Your task to perform on an android device: Open the web browser Image 0: 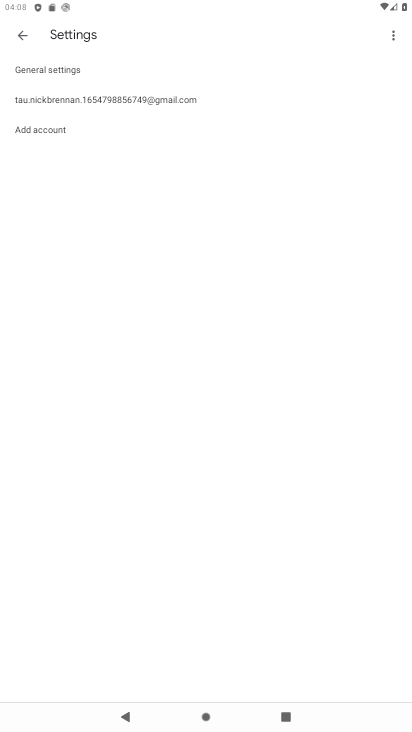
Step 0: press home button
Your task to perform on an android device: Open the web browser Image 1: 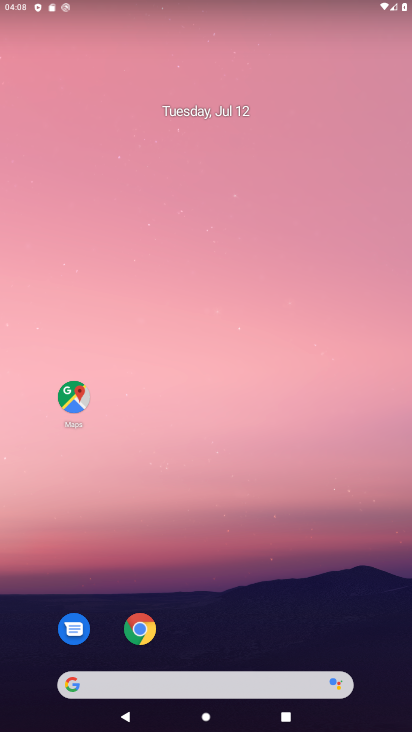
Step 1: drag from (317, 609) to (164, 41)
Your task to perform on an android device: Open the web browser Image 2: 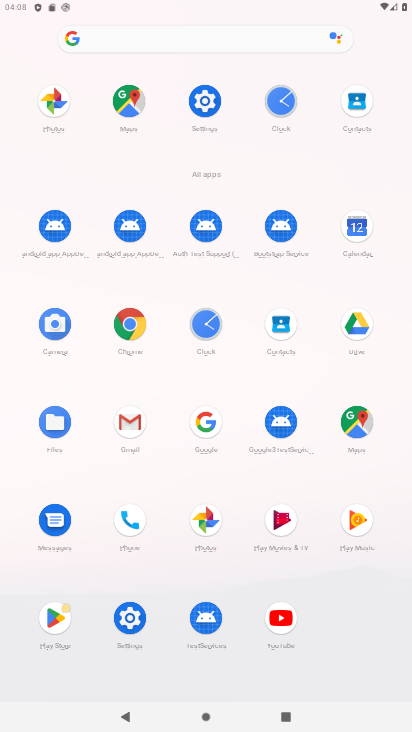
Step 2: click (128, 324)
Your task to perform on an android device: Open the web browser Image 3: 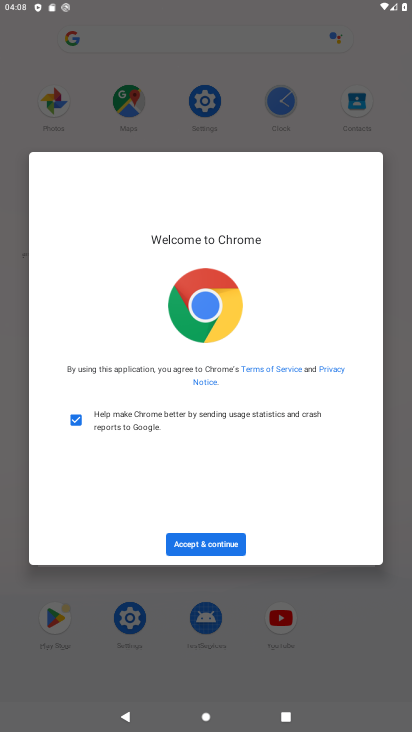
Step 3: click (226, 541)
Your task to perform on an android device: Open the web browser Image 4: 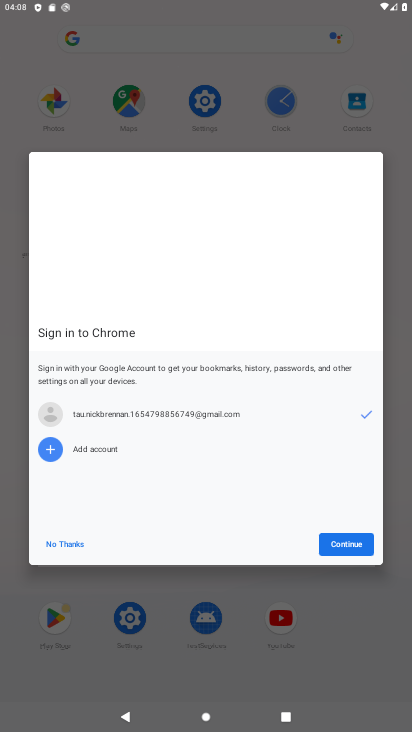
Step 4: click (361, 544)
Your task to perform on an android device: Open the web browser Image 5: 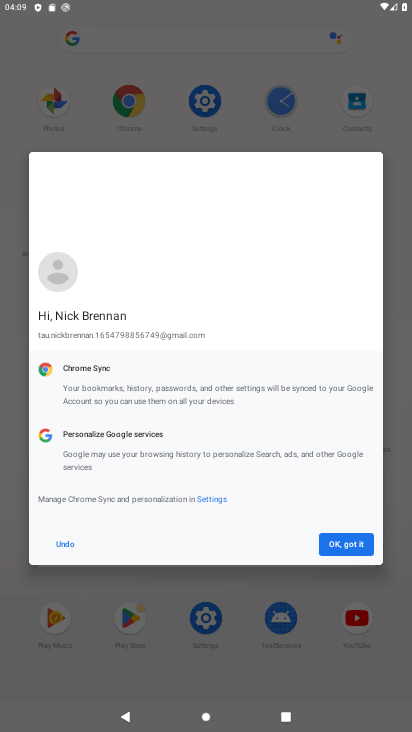
Step 5: click (347, 540)
Your task to perform on an android device: Open the web browser Image 6: 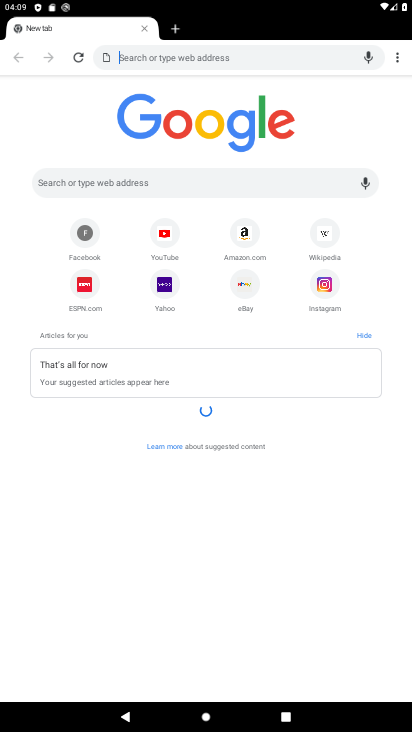
Step 6: task complete